Your task to perform on an android device: turn off picture-in-picture Image 0: 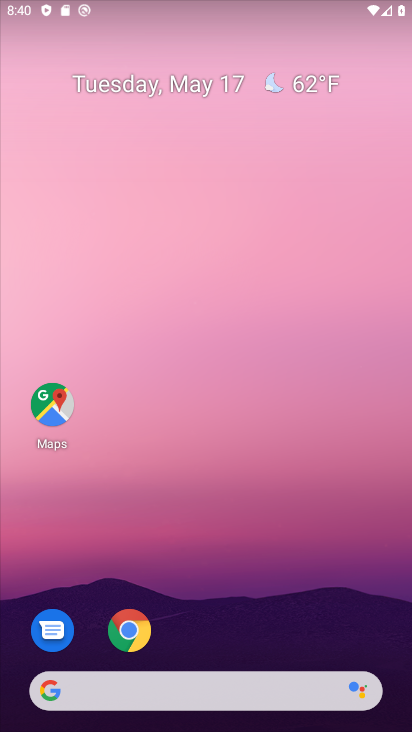
Step 0: drag from (210, 603) to (203, 243)
Your task to perform on an android device: turn off picture-in-picture Image 1: 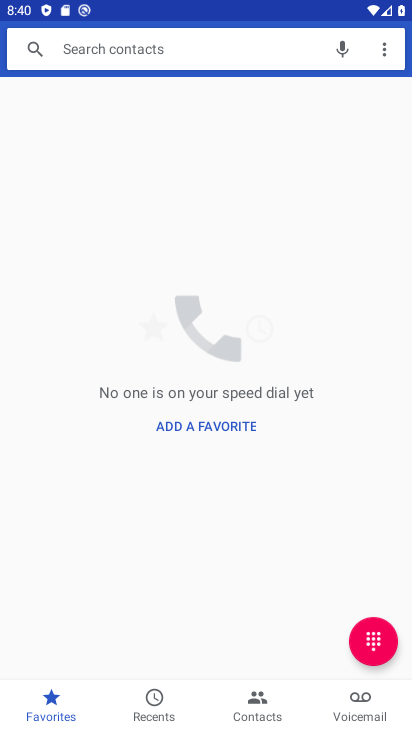
Step 1: press home button
Your task to perform on an android device: turn off picture-in-picture Image 2: 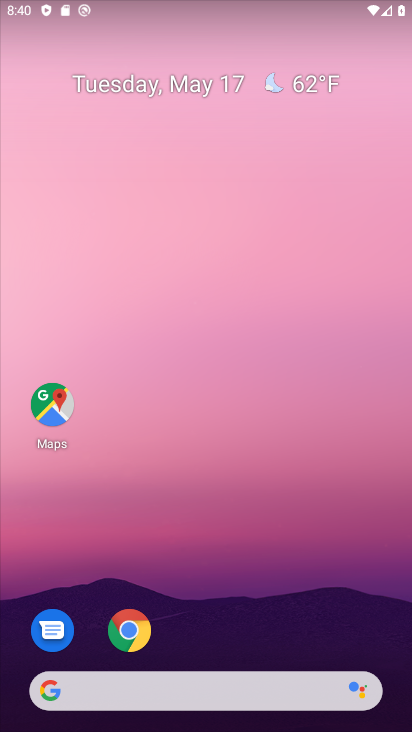
Step 2: click (243, 693)
Your task to perform on an android device: turn off picture-in-picture Image 3: 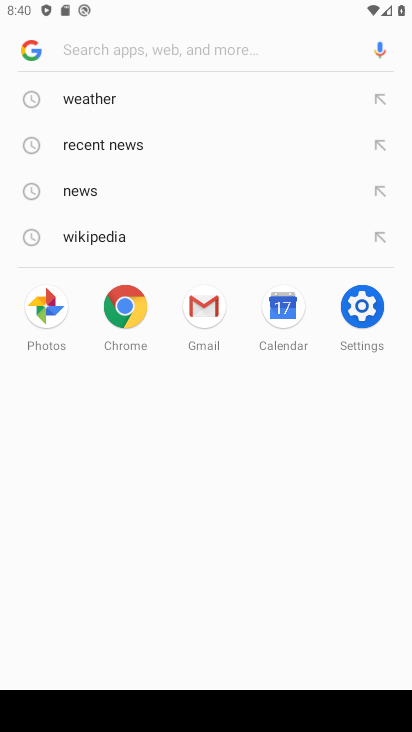
Step 3: press home button
Your task to perform on an android device: turn off picture-in-picture Image 4: 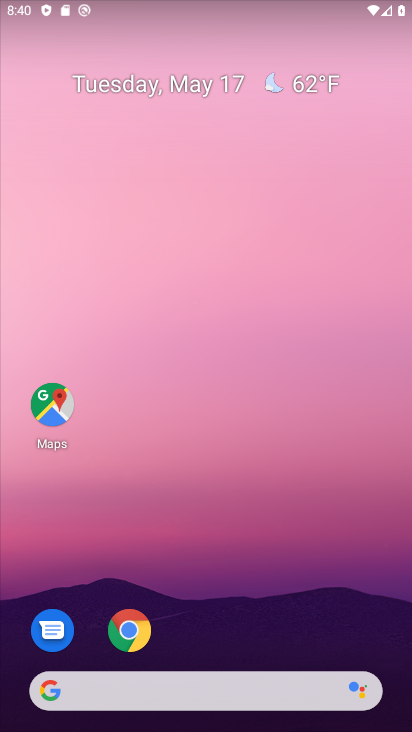
Step 4: drag from (237, 605) to (163, 136)
Your task to perform on an android device: turn off picture-in-picture Image 5: 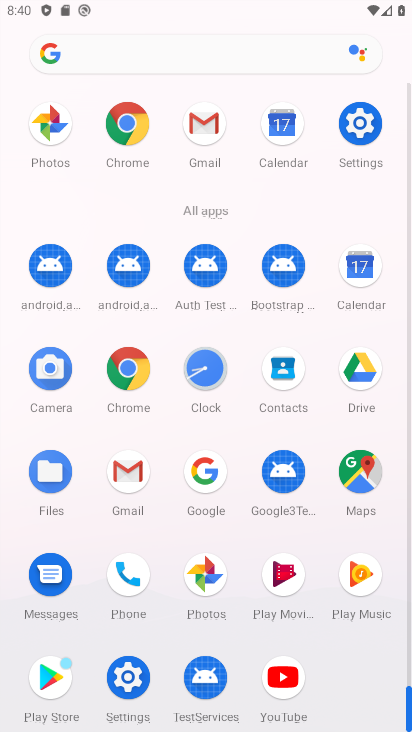
Step 5: click (347, 133)
Your task to perform on an android device: turn off picture-in-picture Image 6: 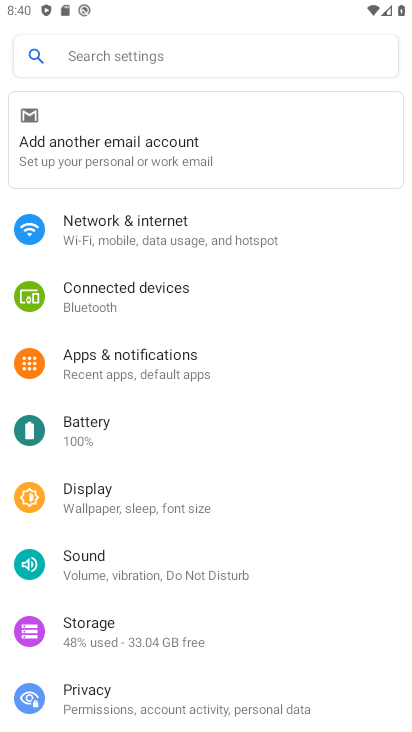
Step 6: drag from (121, 661) to (84, 328)
Your task to perform on an android device: turn off picture-in-picture Image 7: 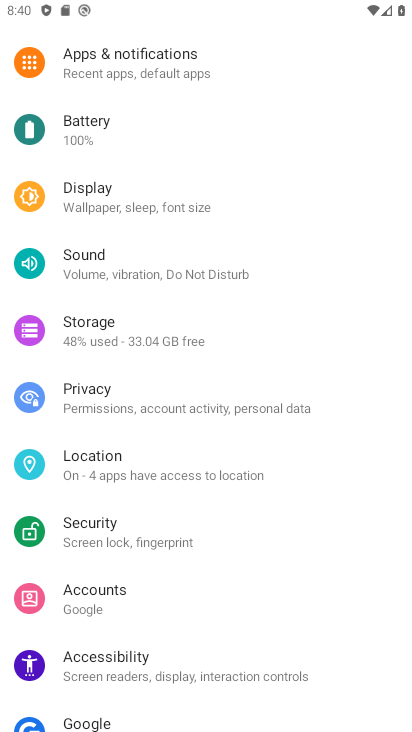
Step 7: click (132, 66)
Your task to perform on an android device: turn off picture-in-picture Image 8: 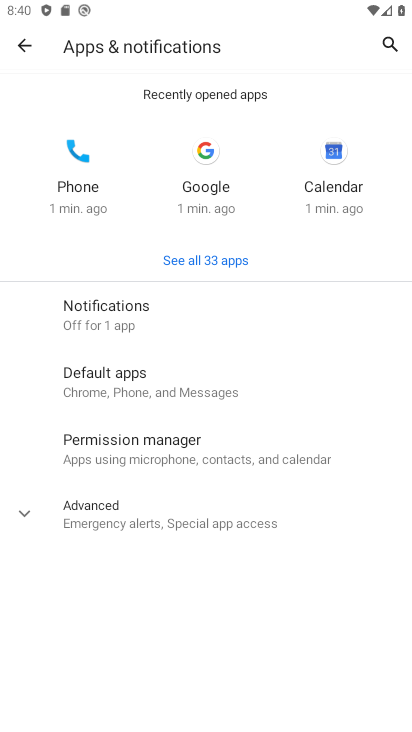
Step 8: click (134, 522)
Your task to perform on an android device: turn off picture-in-picture Image 9: 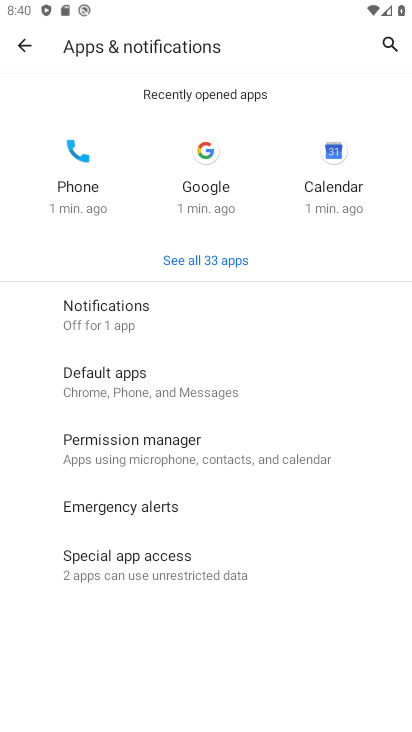
Step 9: click (143, 573)
Your task to perform on an android device: turn off picture-in-picture Image 10: 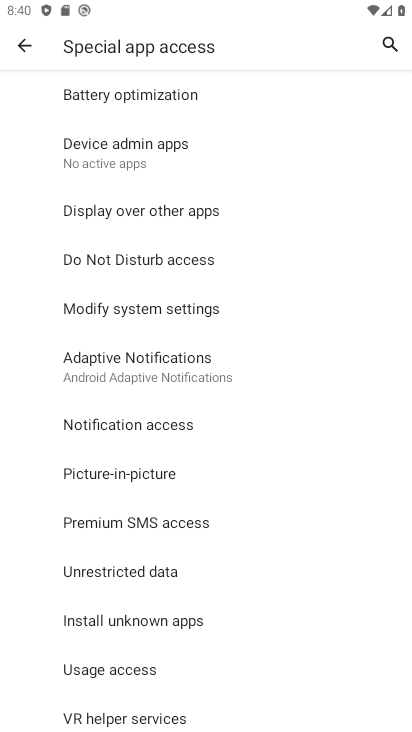
Step 10: click (125, 485)
Your task to perform on an android device: turn off picture-in-picture Image 11: 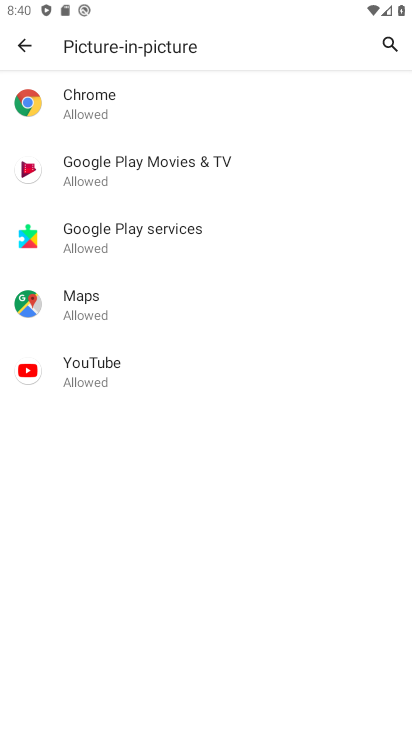
Step 11: click (80, 121)
Your task to perform on an android device: turn off picture-in-picture Image 12: 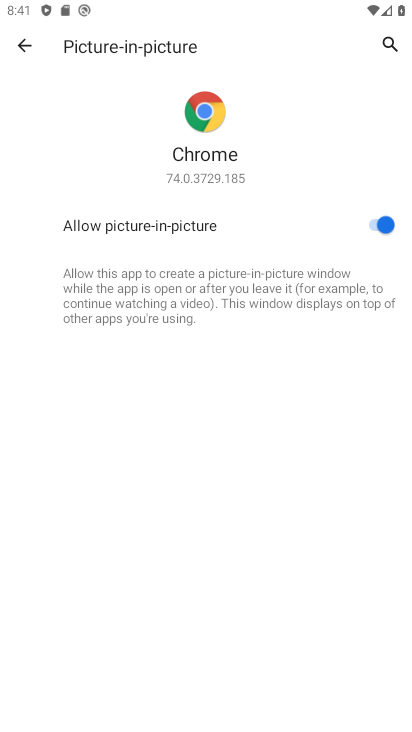
Step 12: click (375, 235)
Your task to perform on an android device: turn off picture-in-picture Image 13: 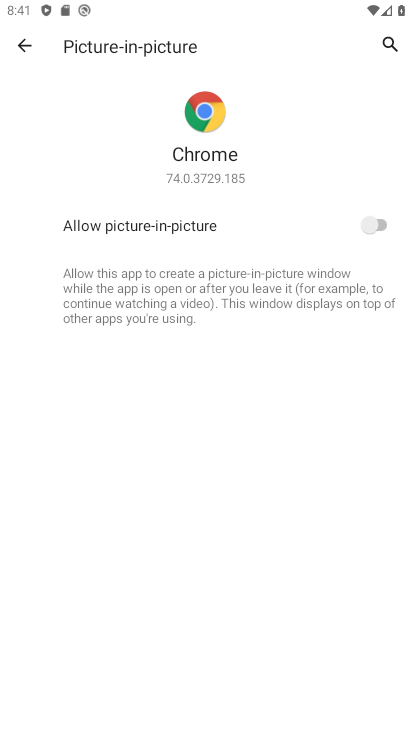
Step 13: task complete